Your task to perform on an android device: add a label to a message in the gmail app Image 0: 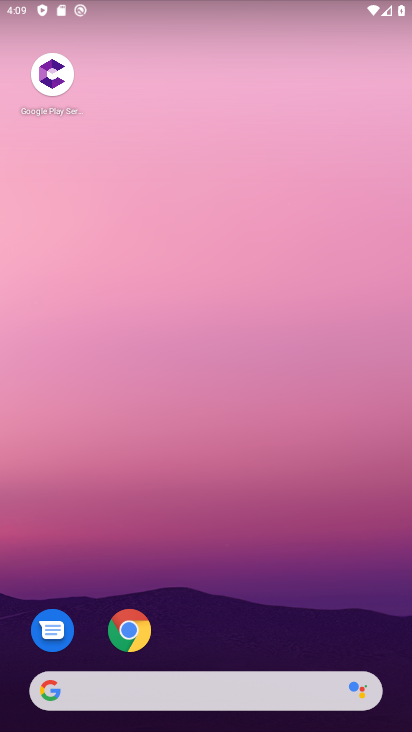
Step 0: click (174, 126)
Your task to perform on an android device: add a label to a message in the gmail app Image 1: 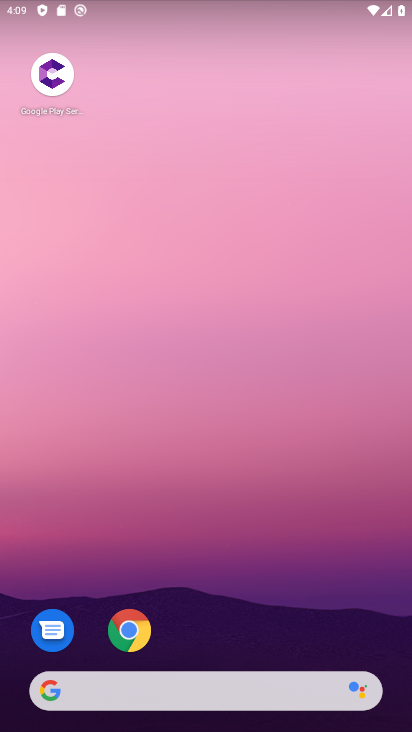
Step 1: click (128, 111)
Your task to perform on an android device: add a label to a message in the gmail app Image 2: 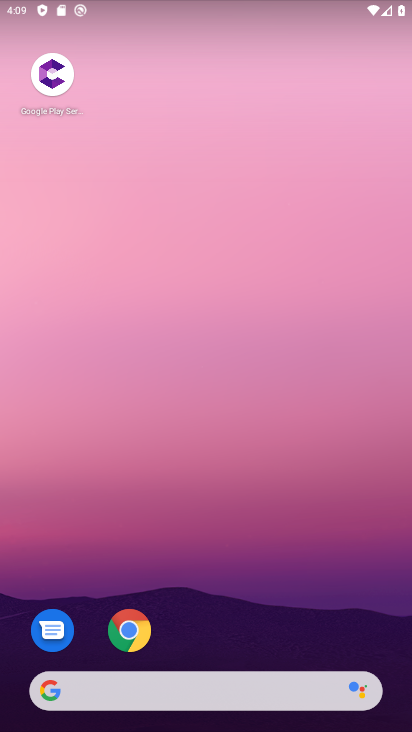
Step 2: drag from (215, 674) to (120, 57)
Your task to perform on an android device: add a label to a message in the gmail app Image 3: 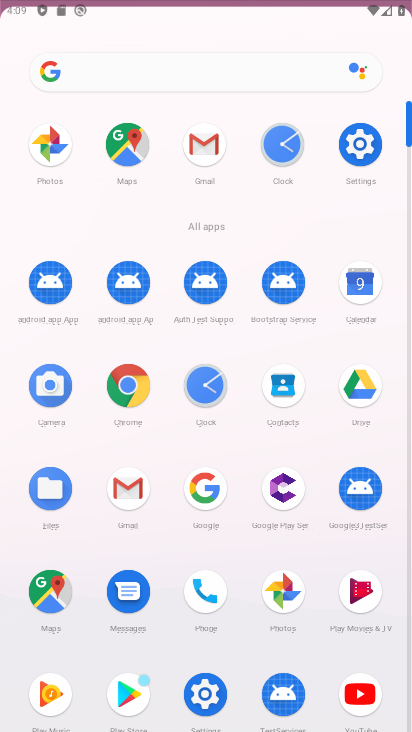
Step 3: drag from (254, 513) to (184, 157)
Your task to perform on an android device: add a label to a message in the gmail app Image 4: 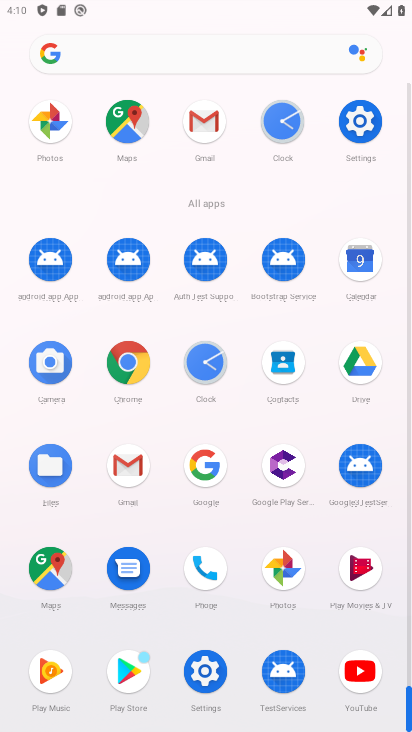
Step 4: click (140, 468)
Your task to perform on an android device: add a label to a message in the gmail app Image 5: 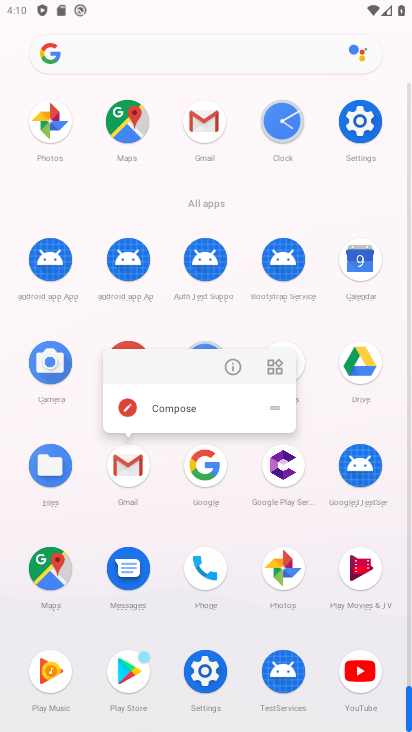
Step 5: click (122, 482)
Your task to perform on an android device: add a label to a message in the gmail app Image 6: 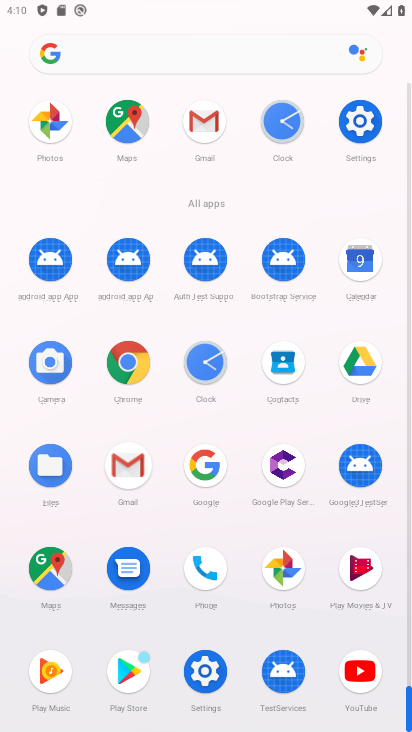
Step 6: click (122, 482)
Your task to perform on an android device: add a label to a message in the gmail app Image 7: 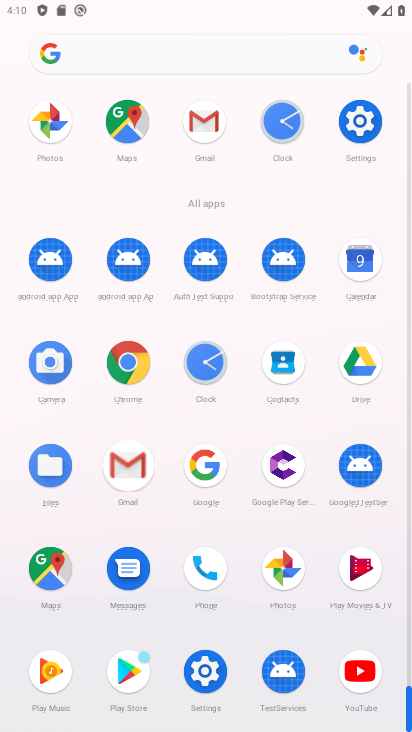
Step 7: click (125, 474)
Your task to perform on an android device: add a label to a message in the gmail app Image 8: 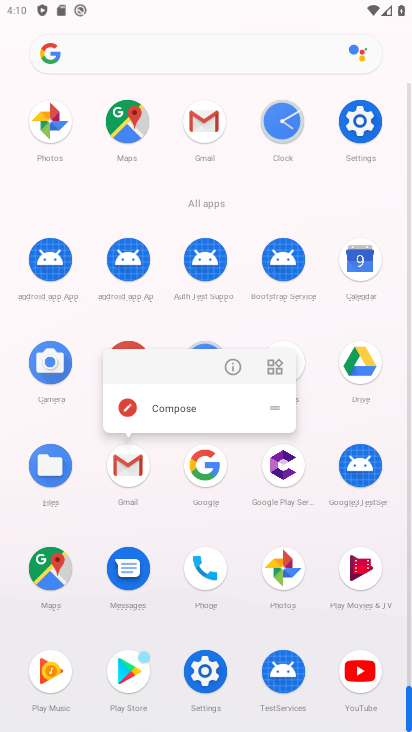
Step 8: click (125, 474)
Your task to perform on an android device: add a label to a message in the gmail app Image 9: 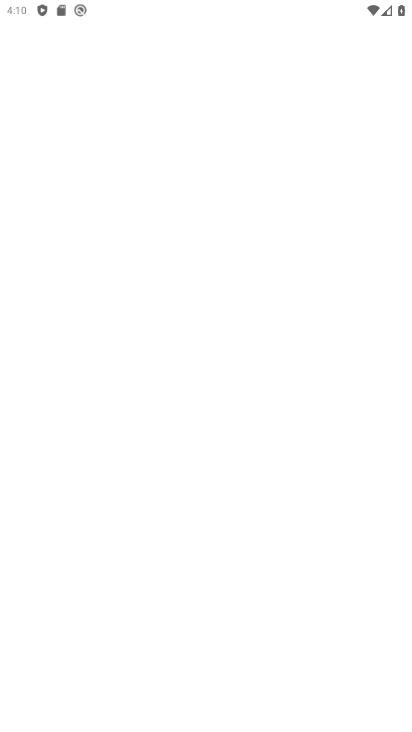
Step 9: click (130, 461)
Your task to perform on an android device: add a label to a message in the gmail app Image 10: 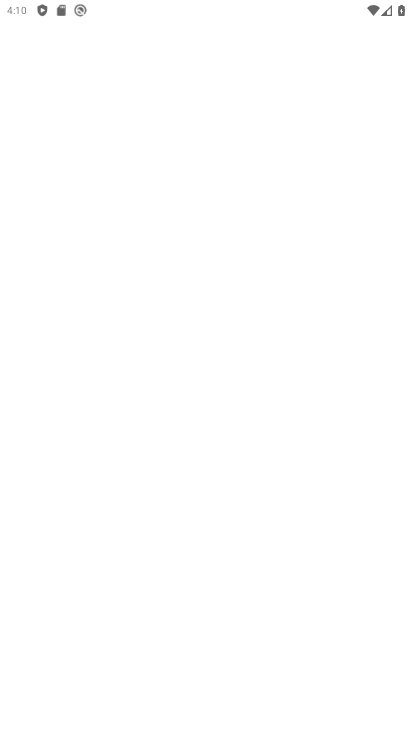
Step 10: click (130, 461)
Your task to perform on an android device: add a label to a message in the gmail app Image 11: 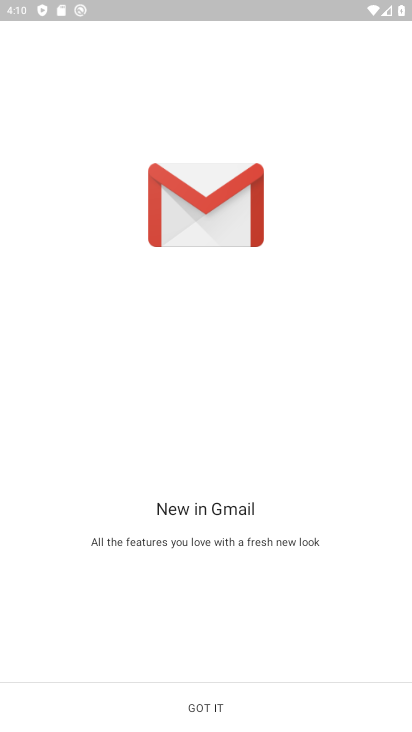
Step 11: click (220, 707)
Your task to perform on an android device: add a label to a message in the gmail app Image 12: 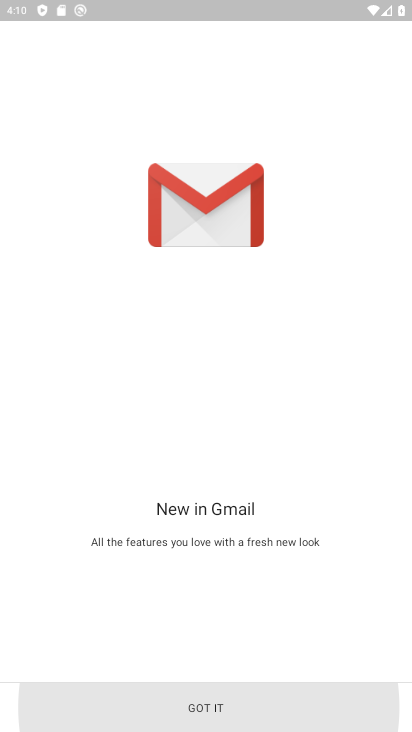
Step 12: click (220, 707)
Your task to perform on an android device: add a label to a message in the gmail app Image 13: 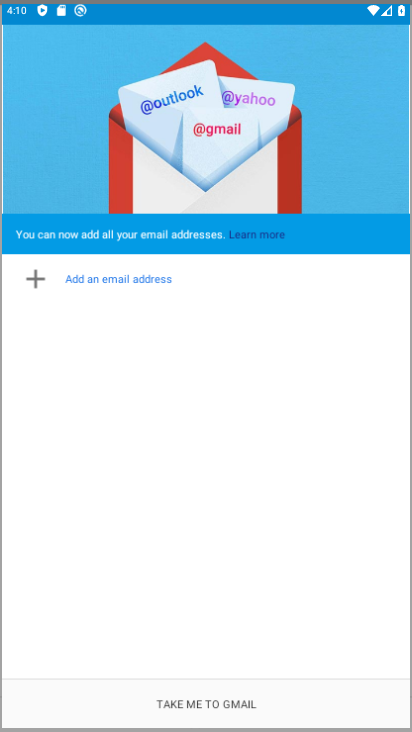
Step 13: click (220, 707)
Your task to perform on an android device: add a label to a message in the gmail app Image 14: 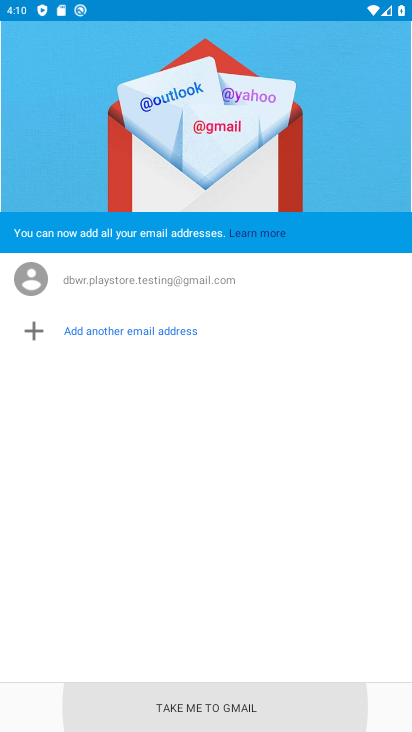
Step 14: click (220, 707)
Your task to perform on an android device: add a label to a message in the gmail app Image 15: 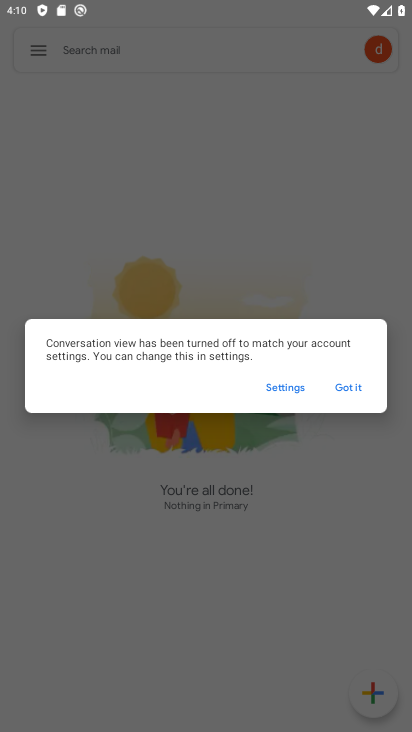
Step 15: click (350, 381)
Your task to perform on an android device: add a label to a message in the gmail app Image 16: 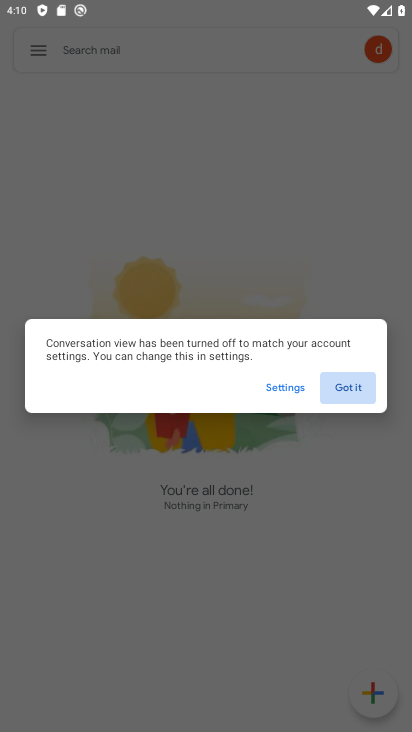
Step 16: click (350, 381)
Your task to perform on an android device: add a label to a message in the gmail app Image 17: 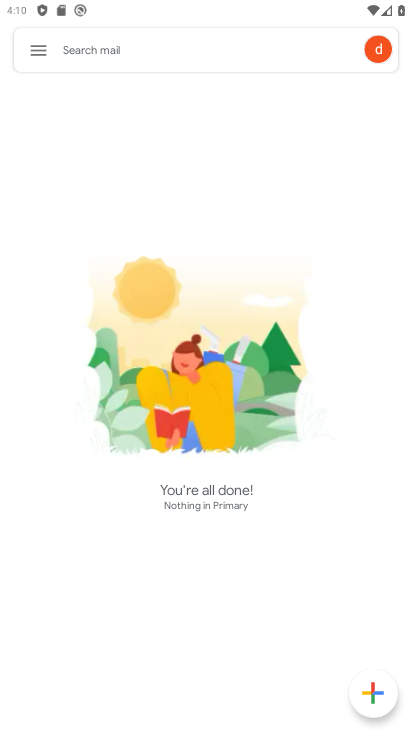
Step 17: click (350, 381)
Your task to perform on an android device: add a label to a message in the gmail app Image 18: 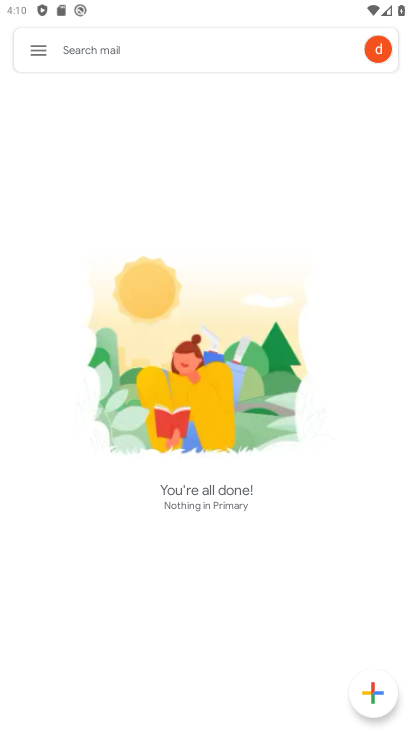
Step 18: click (28, 42)
Your task to perform on an android device: add a label to a message in the gmail app Image 19: 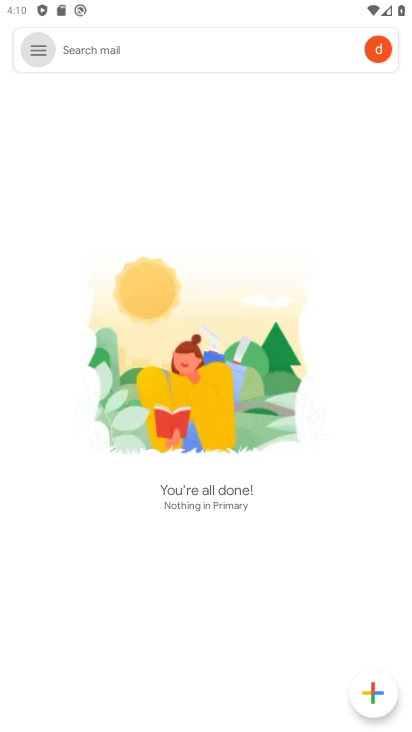
Step 19: click (28, 45)
Your task to perform on an android device: add a label to a message in the gmail app Image 20: 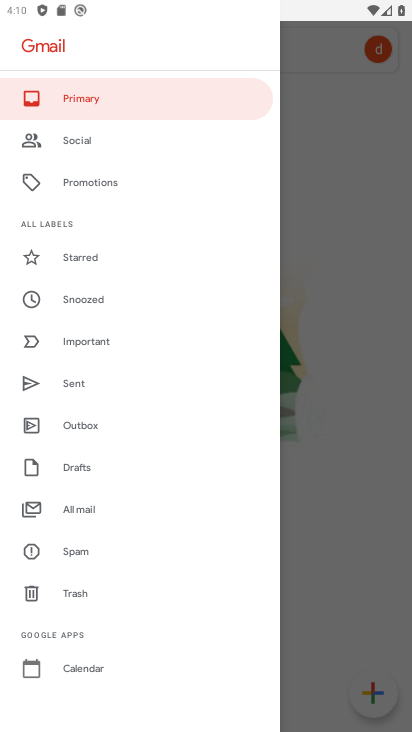
Step 20: click (82, 514)
Your task to perform on an android device: add a label to a message in the gmail app Image 21: 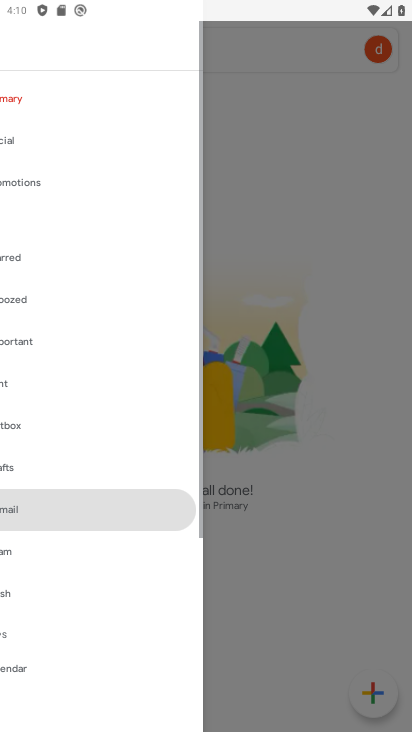
Step 21: click (80, 512)
Your task to perform on an android device: add a label to a message in the gmail app Image 22: 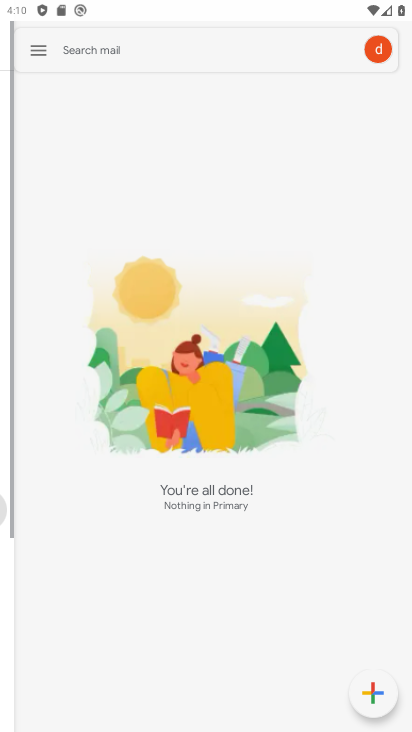
Step 22: click (80, 512)
Your task to perform on an android device: add a label to a message in the gmail app Image 23: 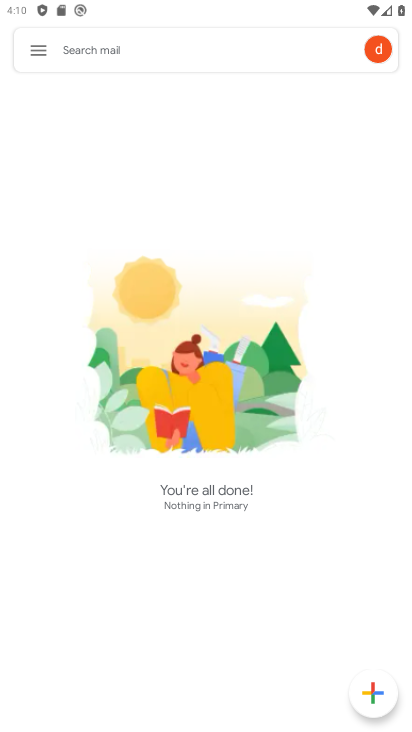
Step 23: click (80, 512)
Your task to perform on an android device: add a label to a message in the gmail app Image 24: 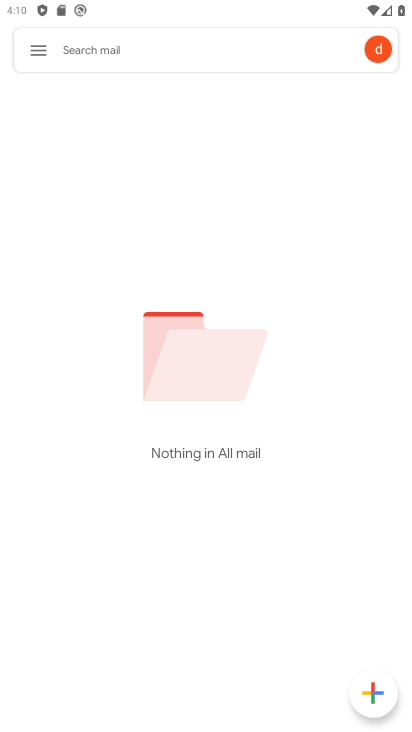
Step 24: task complete